Your task to perform on an android device: change text size in settings app Image 0: 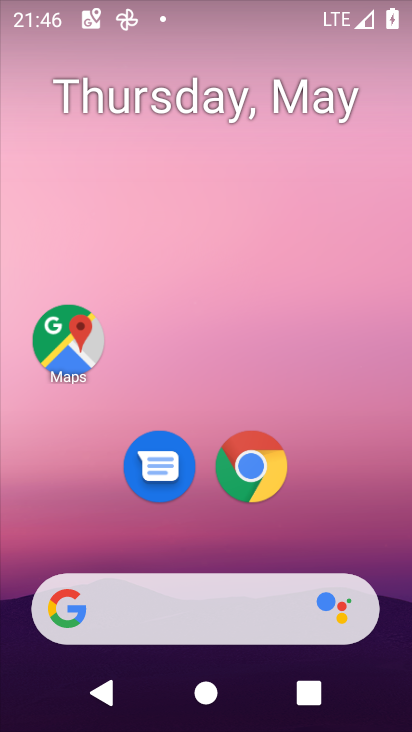
Step 0: drag from (370, 541) to (344, 170)
Your task to perform on an android device: change text size in settings app Image 1: 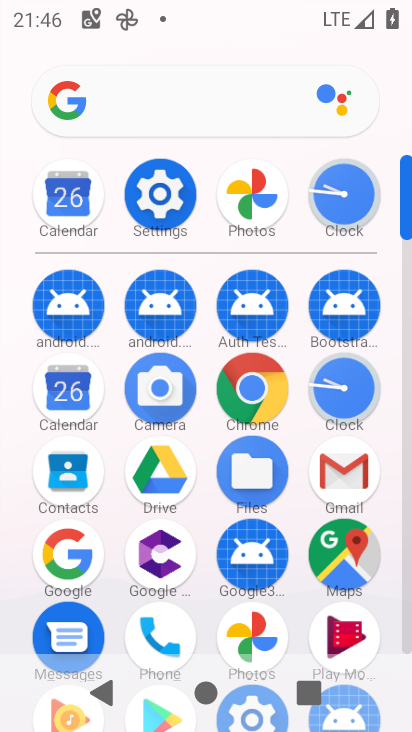
Step 1: click (177, 198)
Your task to perform on an android device: change text size in settings app Image 2: 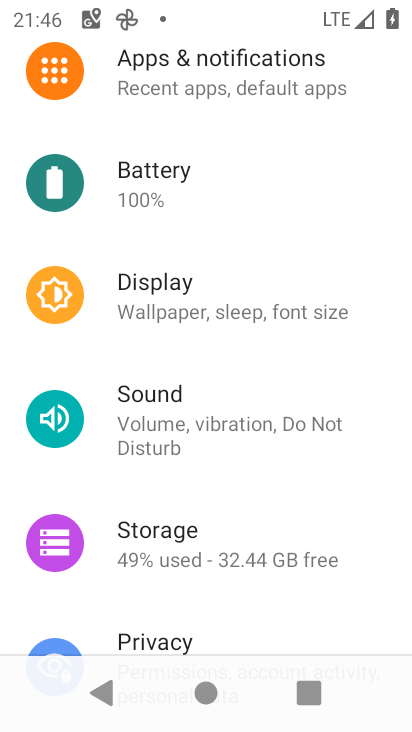
Step 2: click (246, 335)
Your task to perform on an android device: change text size in settings app Image 3: 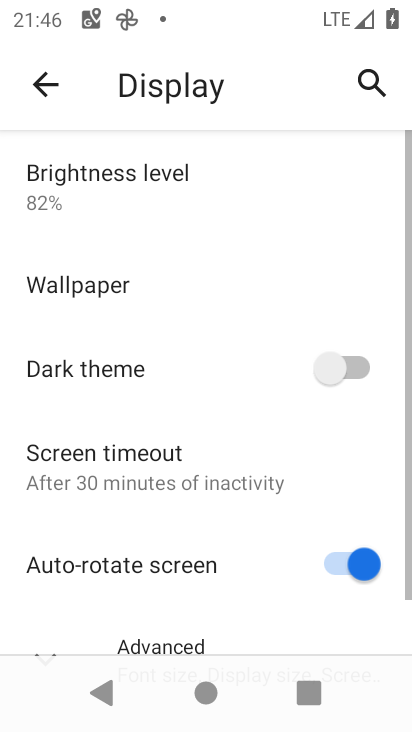
Step 3: drag from (220, 456) to (234, 162)
Your task to perform on an android device: change text size in settings app Image 4: 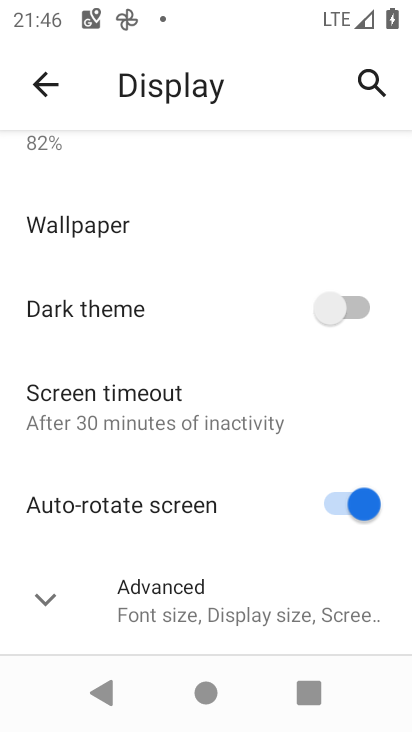
Step 4: click (213, 630)
Your task to perform on an android device: change text size in settings app Image 5: 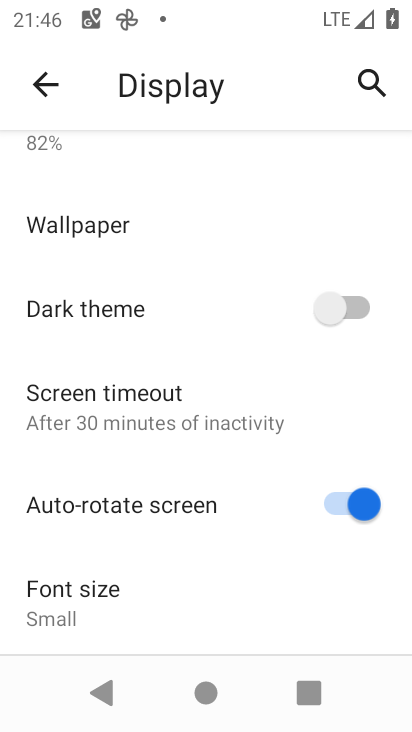
Step 5: drag from (148, 612) to (184, 235)
Your task to perform on an android device: change text size in settings app Image 6: 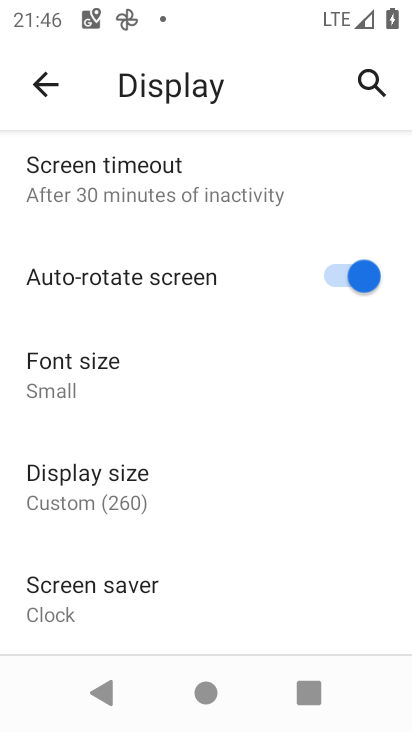
Step 6: click (200, 471)
Your task to perform on an android device: change text size in settings app Image 7: 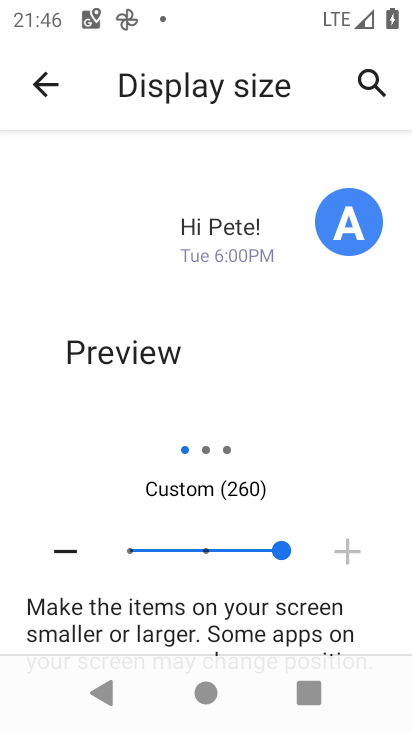
Step 7: task complete